Your task to perform on an android device: Open maps Image 0: 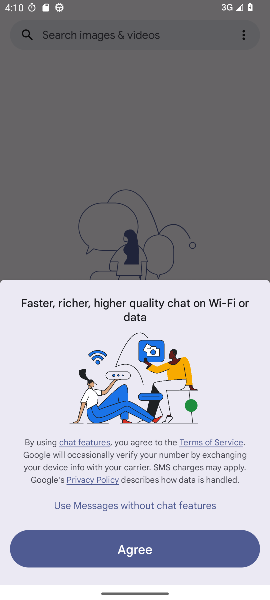
Step 0: press home button
Your task to perform on an android device: Open maps Image 1: 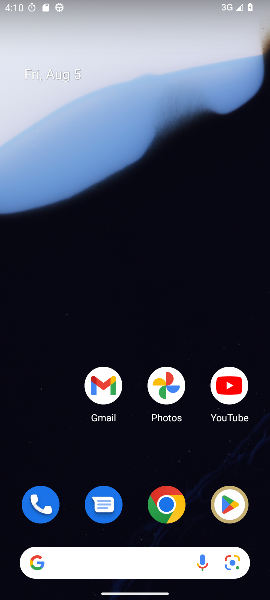
Step 1: drag from (24, 583) to (161, 49)
Your task to perform on an android device: Open maps Image 2: 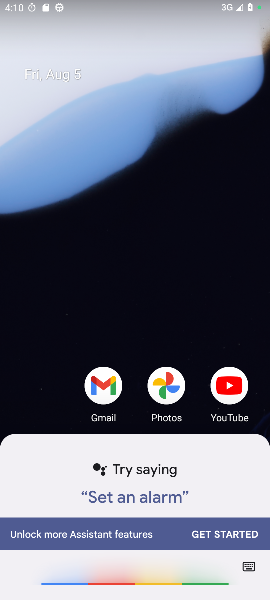
Step 2: click (93, 294)
Your task to perform on an android device: Open maps Image 3: 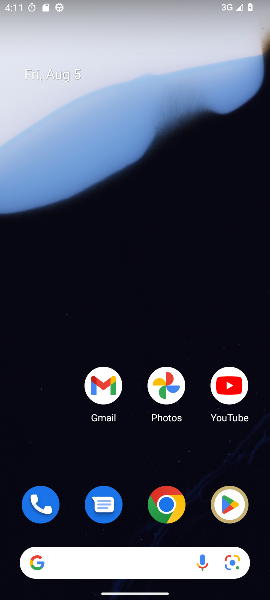
Step 3: drag from (67, 388) to (172, 123)
Your task to perform on an android device: Open maps Image 4: 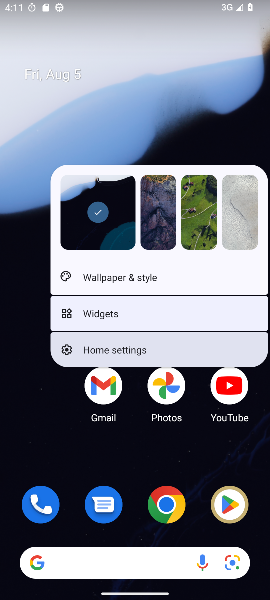
Step 4: press home button
Your task to perform on an android device: Open maps Image 5: 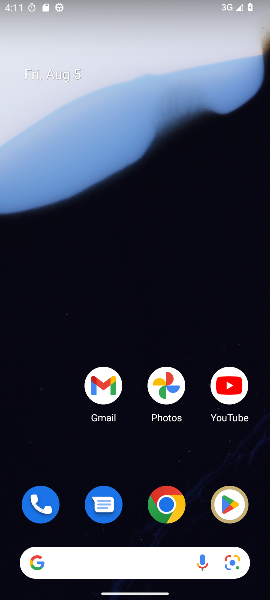
Step 5: drag from (16, 565) to (178, 41)
Your task to perform on an android device: Open maps Image 6: 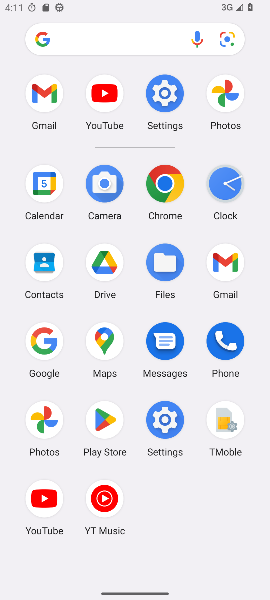
Step 6: click (105, 335)
Your task to perform on an android device: Open maps Image 7: 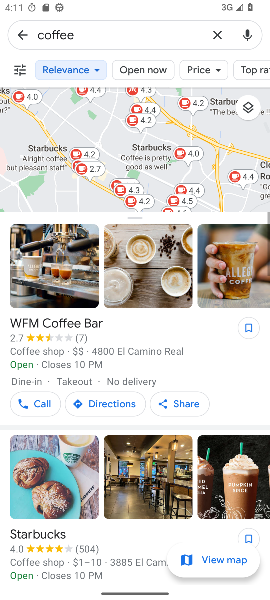
Step 7: click (24, 38)
Your task to perform on an android device: Open maps Image 8: 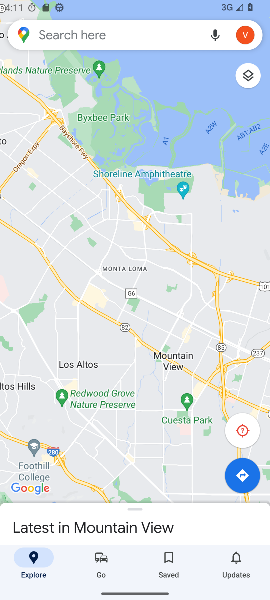
Step 8: task complete